Your task to perform on an android device: open a new tab in the chrome app Image 0: 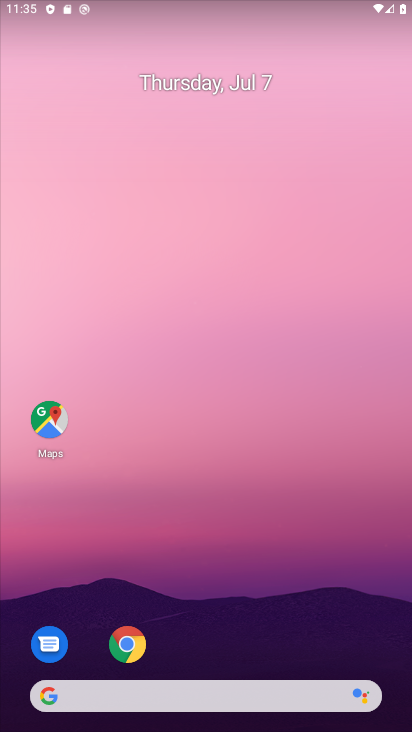
Step 0: drag from (215, 685) to (94, 0)
Your task to perform on an android device: open a new tab in the chrome app Image 1: 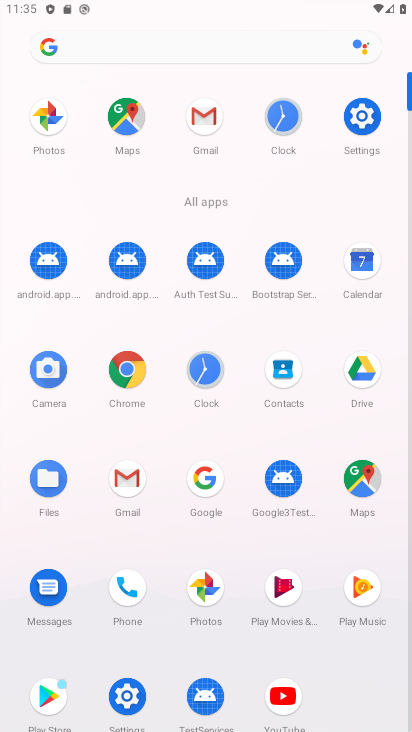
Step 1: click (129, 371)
Your task to perform on an android device: open a new tab in the chrome app Image 2: 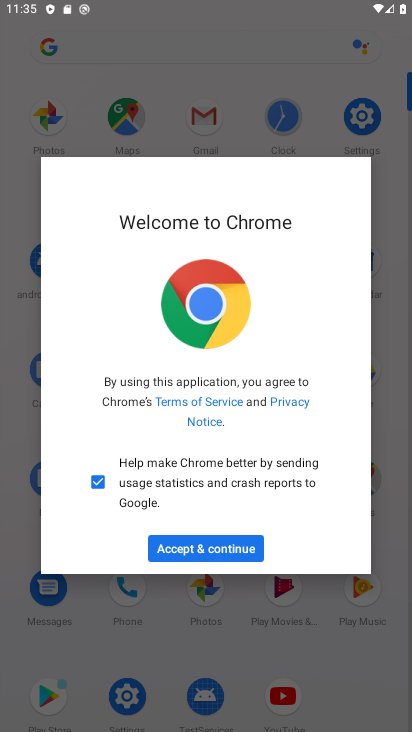
Step 2: click (206, 535)
Your task to perform on an android device: open a new tab in the chrome app Image 3: 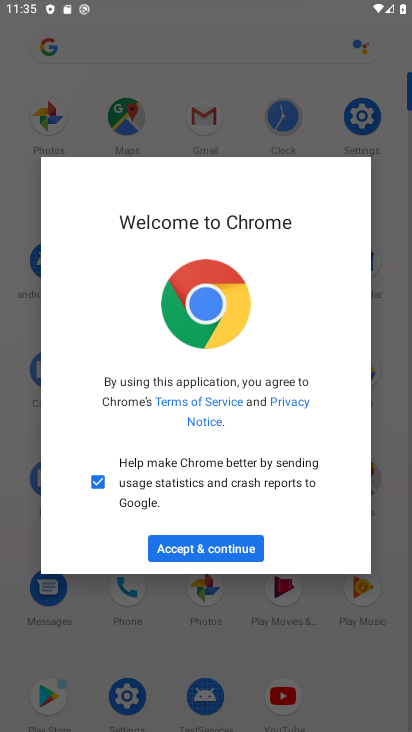
Step 3: click (245, 563)
Your task to perform on an android device: open a new tab in the chrome app Image 4: 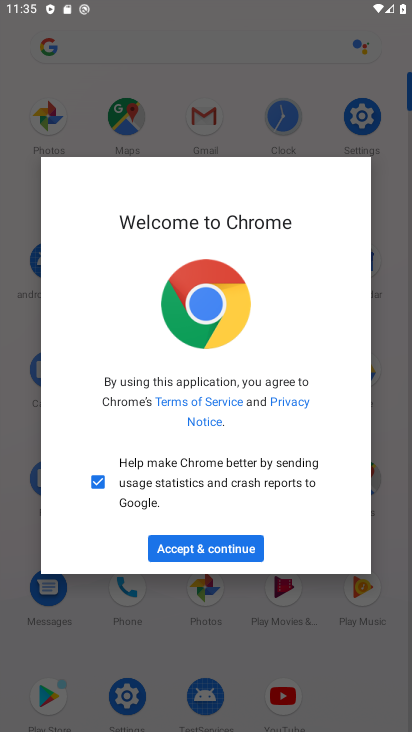
Step 4: click (228, 564)
Your task to perform on an android device: open a new tab in the chrome app Image 5: 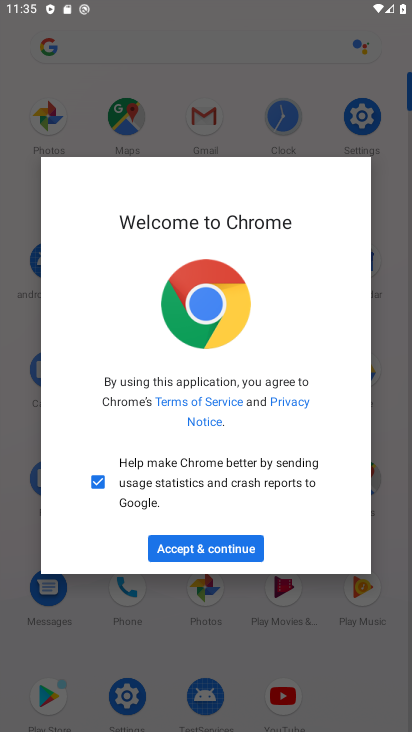
Step 5: click (227, 553)
Your task to perform on an android device: open a new tab in the chrome app Image 6: 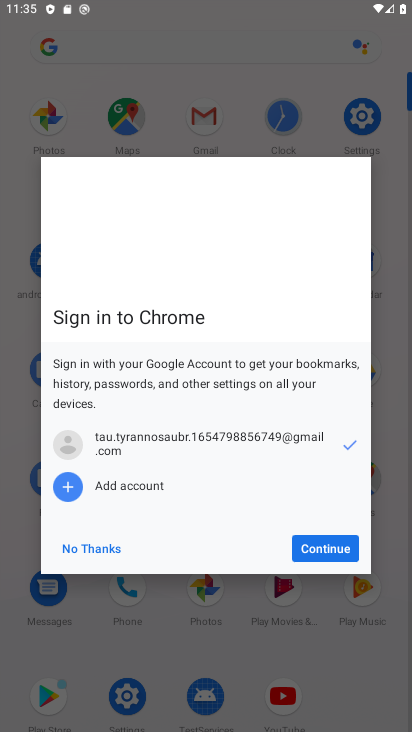
Step 6: click (311, 559)
Your task to perform on an android device: open a new tab in the chrome app Image 7: 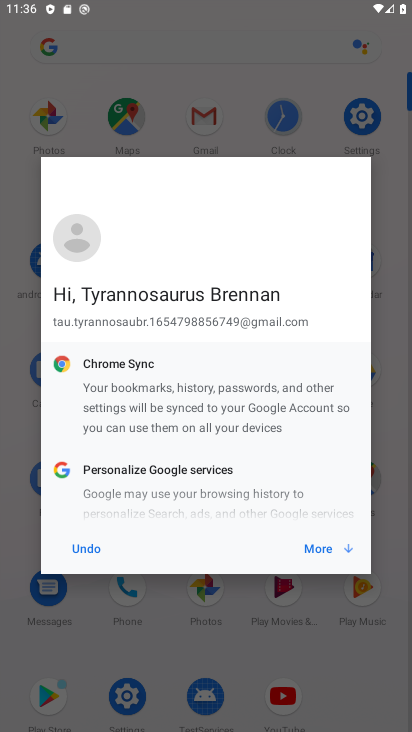
Step 7: click (316, 542)
Your task to perform on an android device: open a new tab in the chrome app Image 8: 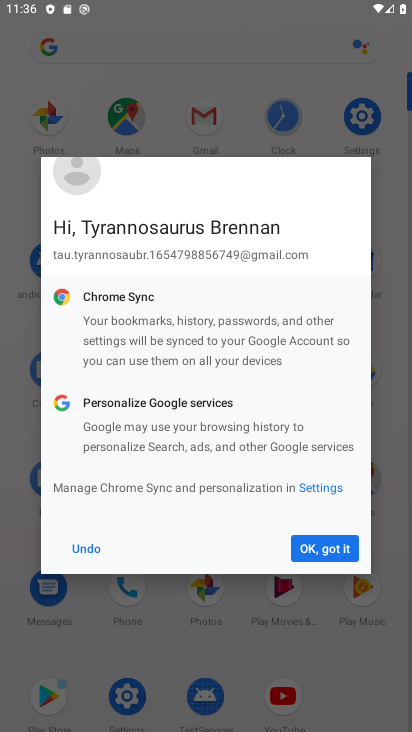
Step 8: click (323, 559)
Your task to perform on an android device: open a new tab in the chrome app Image 9: 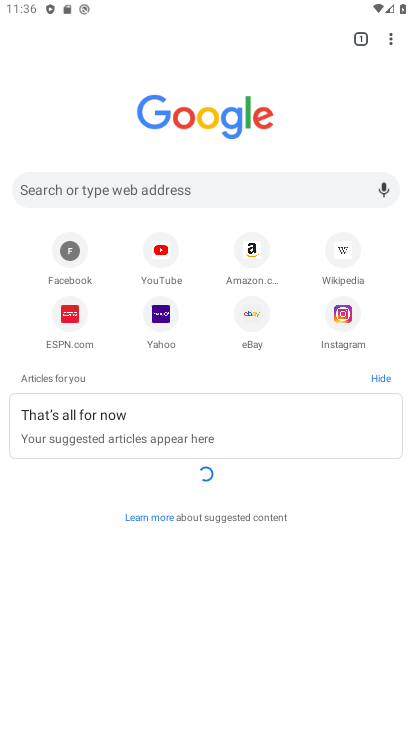
Step 9: click (362, 39)
Your task to perform on an android device: open a new tab in the chrome app Image 10: 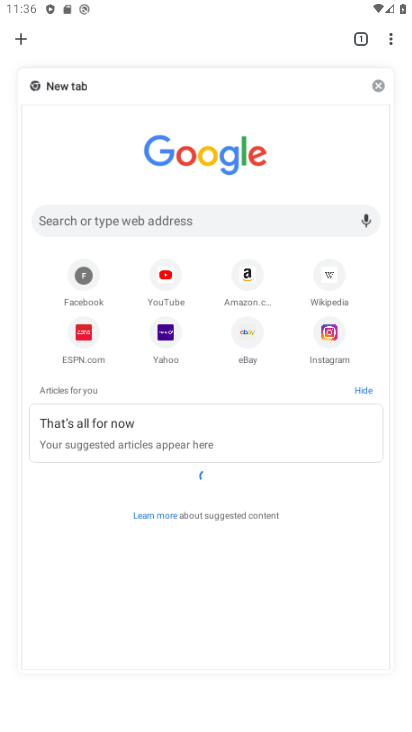
Step 10: click (23, 45)
Your task to perform on an android device: open a new tab in the chrome app Image 11: 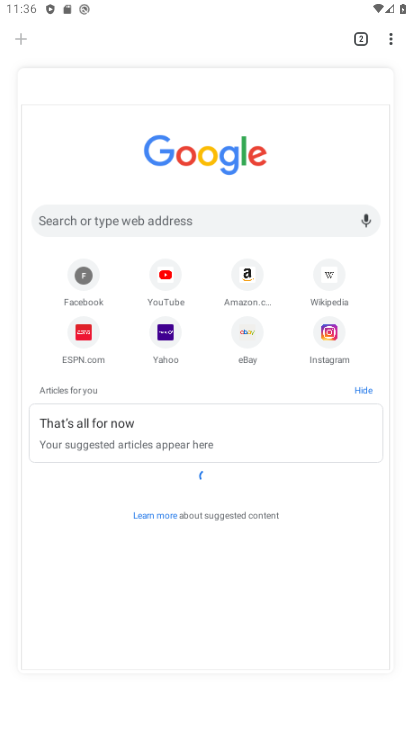
Step 11: task complete